Your task to perform on an android device: make emails show in primary in the gmail app Image 0: 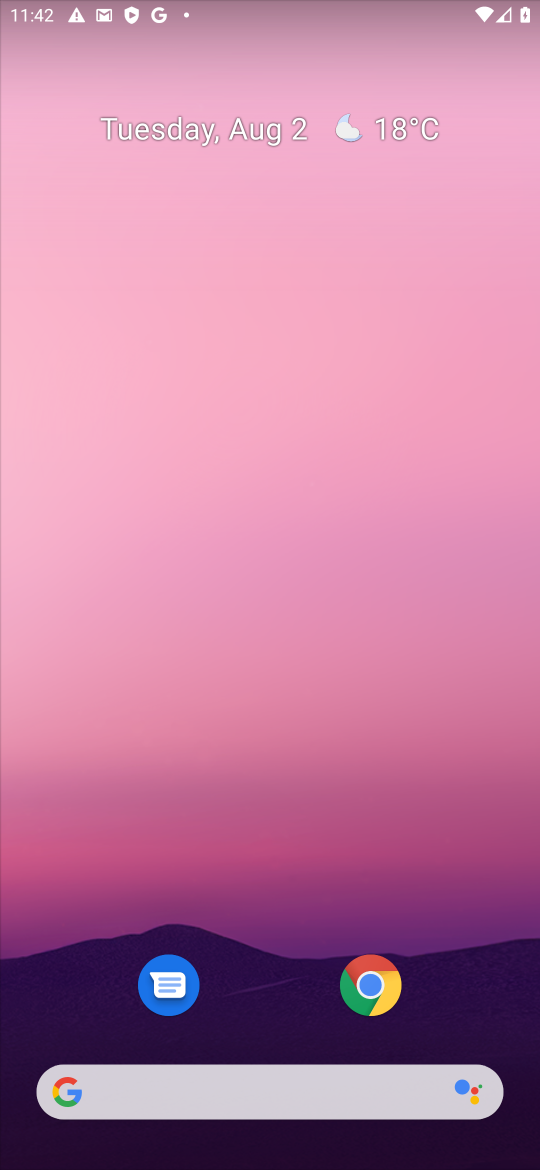
Step 0: task complete